Your task to perform on an android device: Open internet settings Image 0: 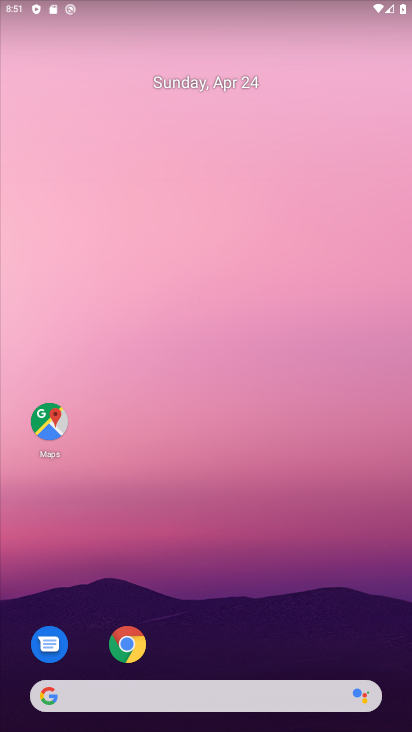
Step 0: drag from (204, 670) to (204, 44)
Your task to perform on an android device: Open internet settings Image 1: 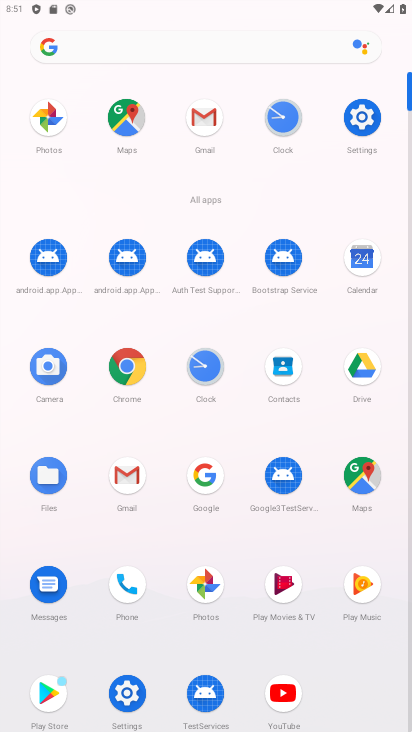
Step 1: click (368, 124)
Your task to perform on an android device: Open internet settings Image 2: 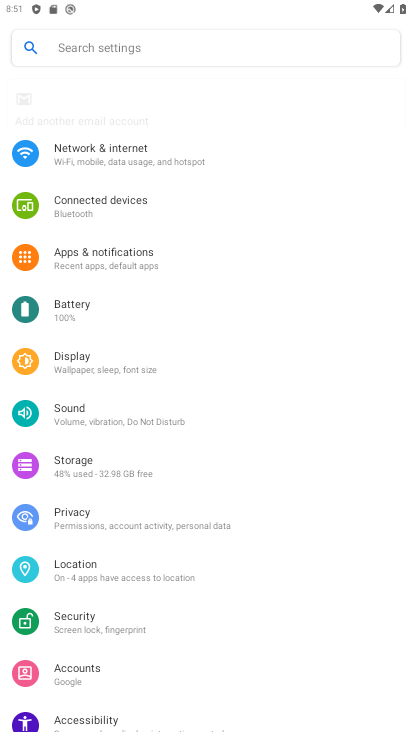
Step 2: click (85, 203)
Your task to perform on an android device: Open internet settings Image 3: 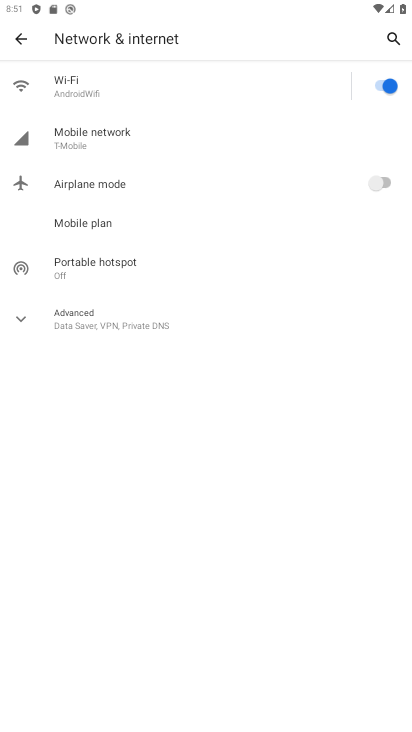
Step 3: click (83, 336)
Your task to perform on an android device: Open internet settings Image 4: 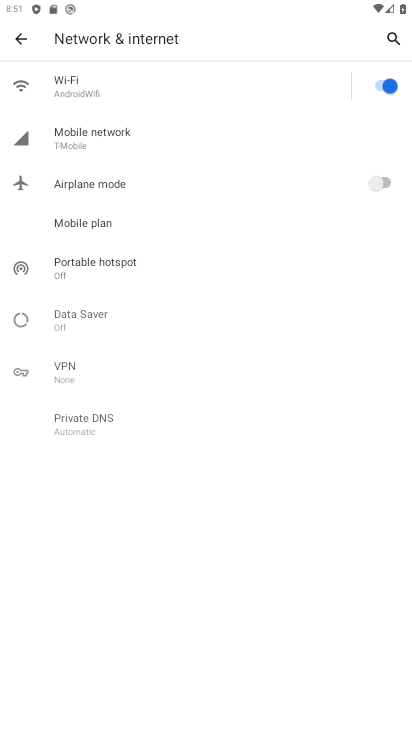
Step 4: task complete